Your task to perform on an android device: change notifications settings Image 0: 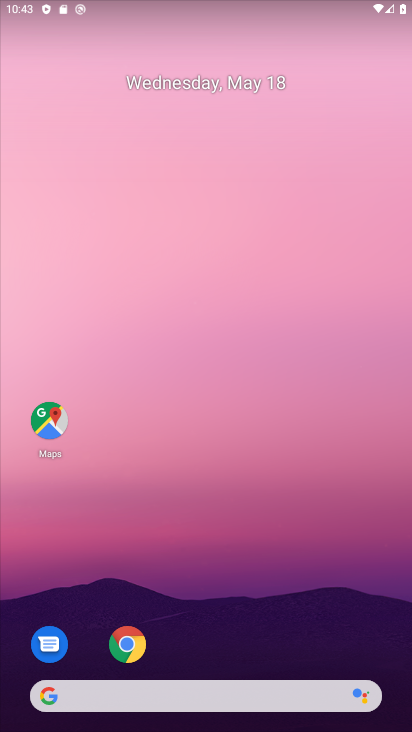
Step 0: drag from (323, 619) to (347, 144)
Your task to perform on an android device: change notifications settings Image 1: 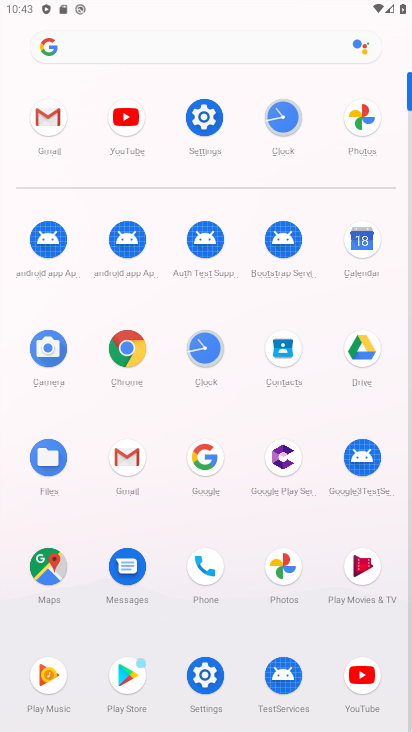
Step 1: click (209, 679)
Your task to perform on an android device: change notifications settings Image 2: 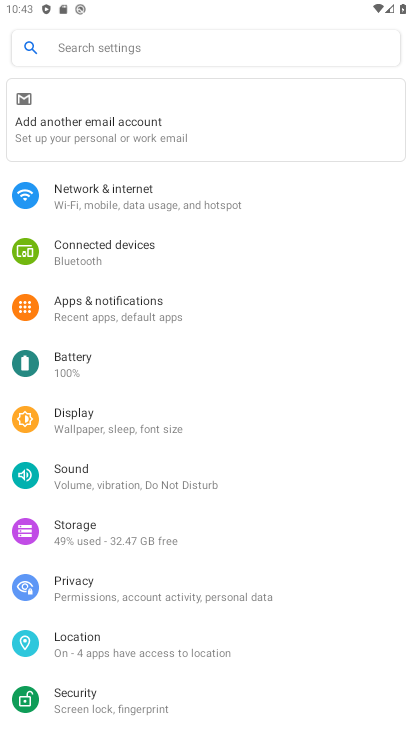
Step 2: click (125, 302)
Your task to perform on an android device: change notifications settings Image 3: 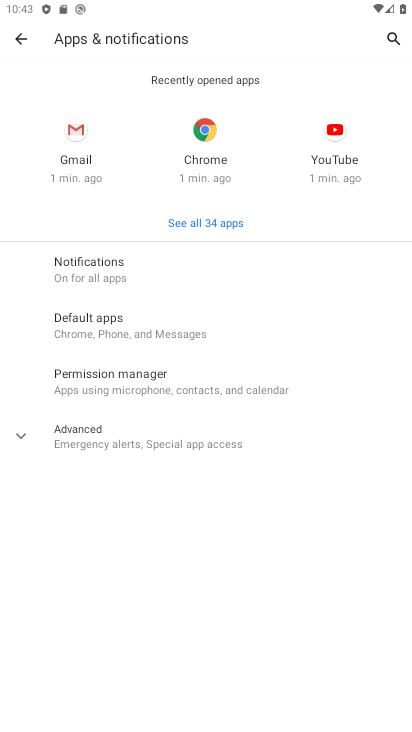
Step 3: task complete